Your task to perform on an android device: Open the map Image 0: 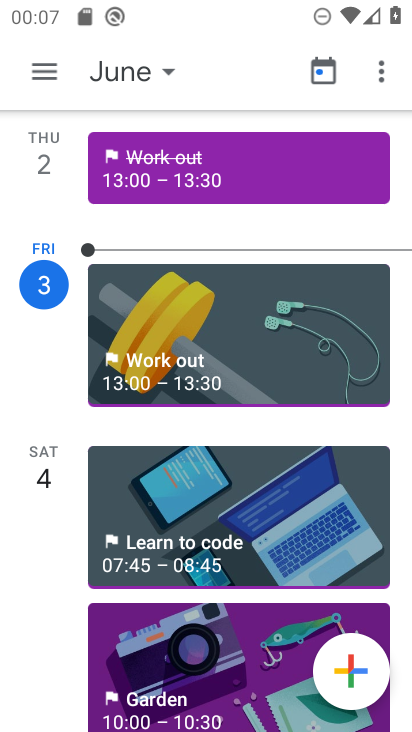
Step 0: press home button
Your task to perform on an android device: Open the map Image 1: 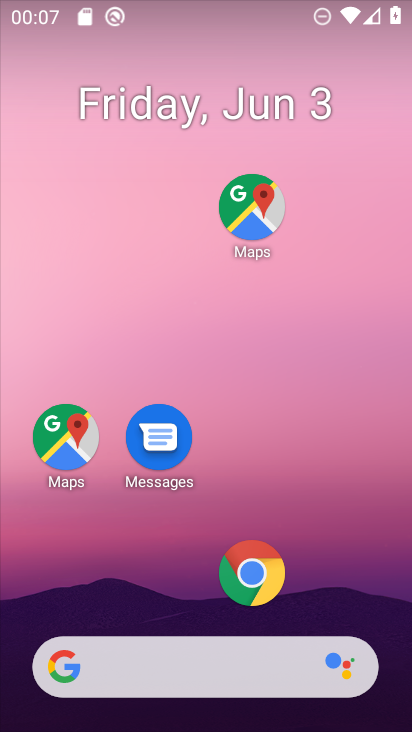
Step 1: click (67, 444)
Your task to perform on an android device: Open the map Image 2: 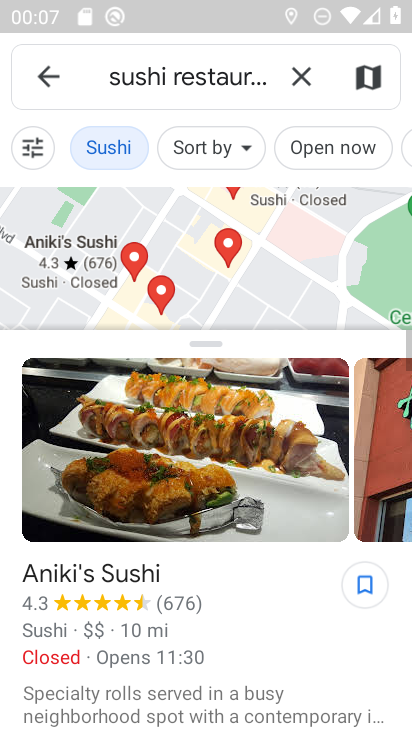
Step 2: task complete